Your task to perform on an android device: turn vacation reply on in the gmail app Image 0: 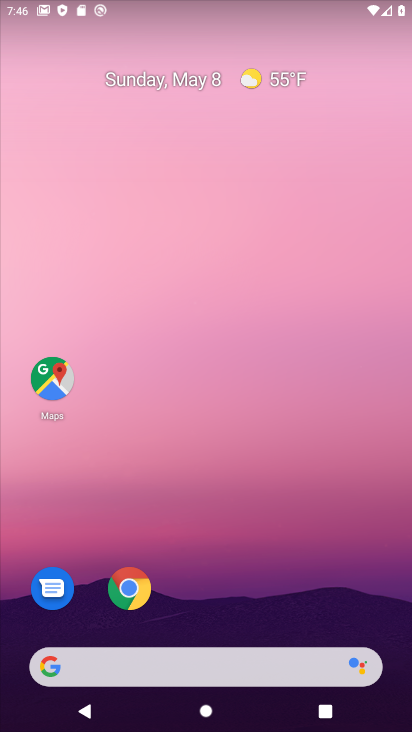
Step 0: click (320, 608)
Your task to perform on an android device: turn vacation reply on in the gmail app Image 1: 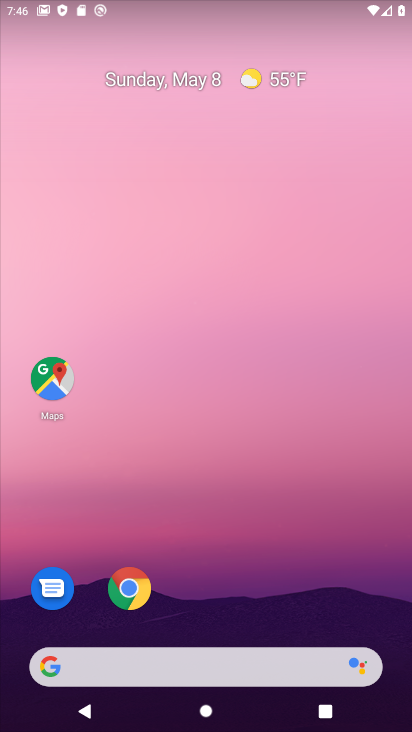
Step 1: drag from (322, 423) to (250, 86)
Your task to perform on an android device: turn vacation reply on in the gmail app Image 2: 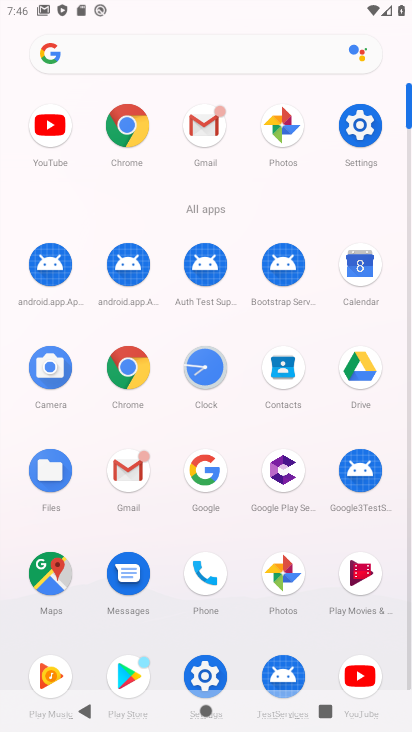
Step 2: click (193, 131)
Your task to perform on an android device: turn vacation reply on in the gmail app Image 3: 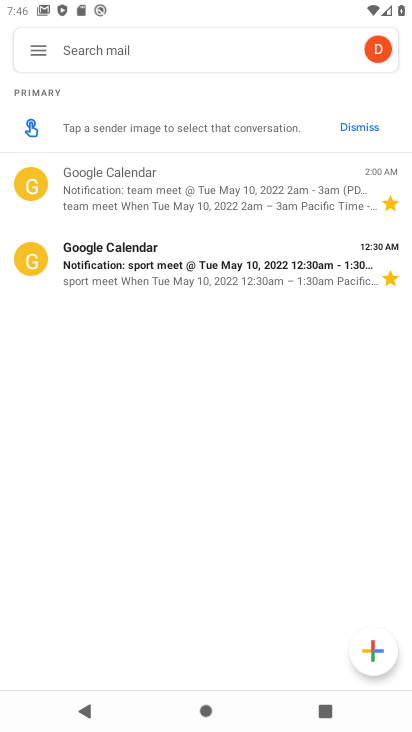
Step 3: click (36, 60)
Your task to perform on an android device: turn vacation reply on in the gmail app Image 4: 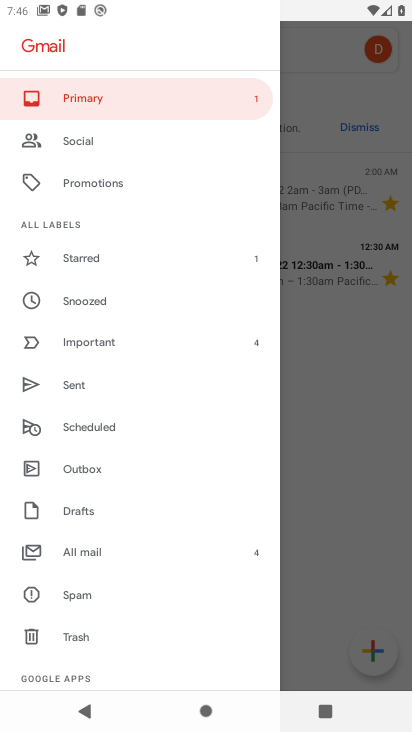
Step 4: drag from (86, 646) to (175, 201)
Your task to perform on an android device: turn vacation reply on in the gmail app Image 5: 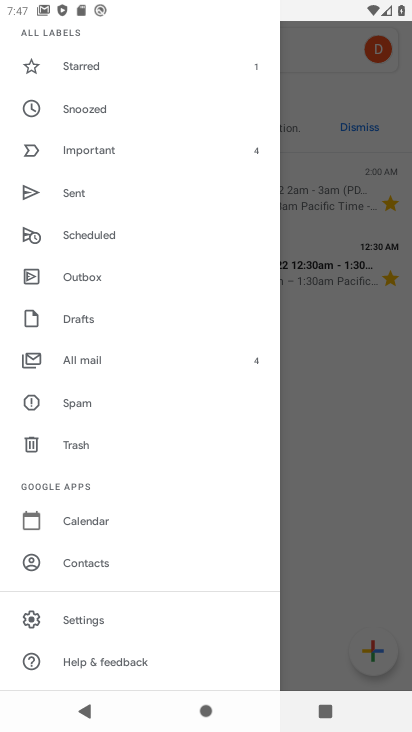
Step 5: click (90, 622)
Your task to perform on an android device: turn vacation reply on in the gmail app Image 6: 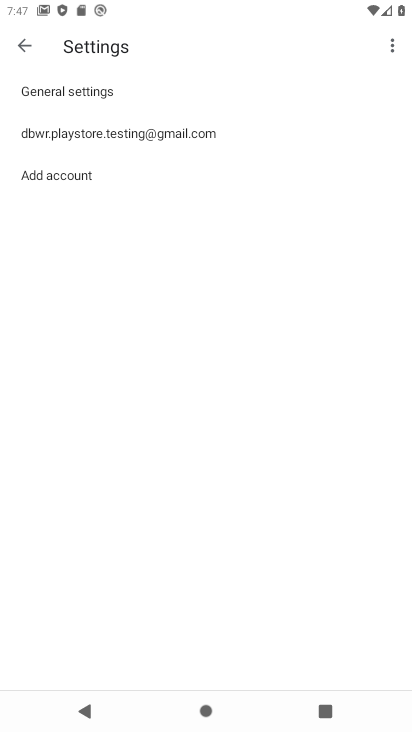
Step 6: click (172, 130)
Your task to perform on an android device: turn vacation reply on in the gmail app Image 7: 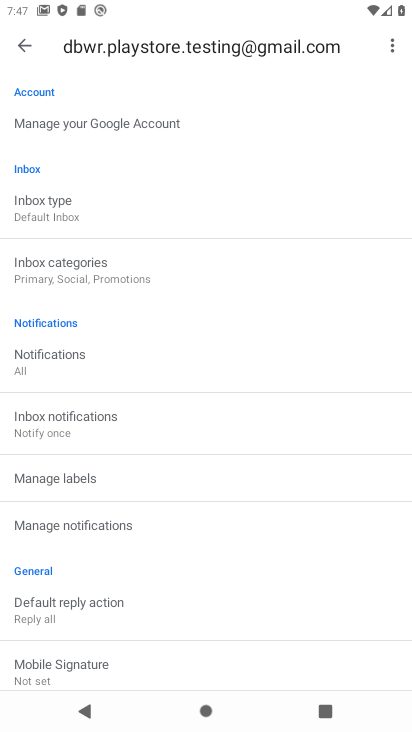
Step 7: drag from (160, 648) to (216, 282)
Your task to perform on an android device: turn vacation reply on in the gmail app Image 8: 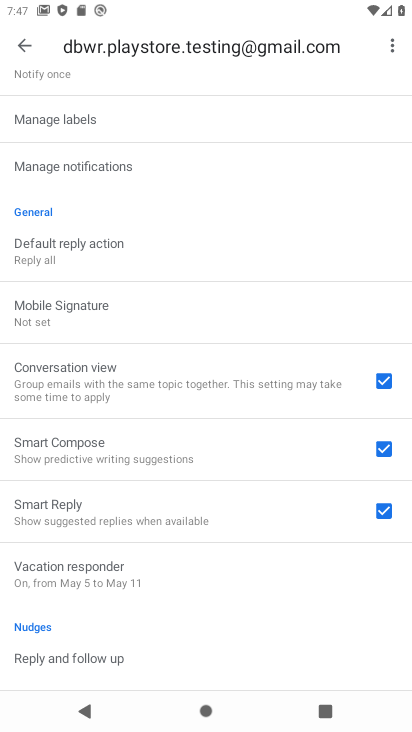
Step 8: click (161, 587)
Your task to perform on an android device: turn vacation reply on in the gmail app Image 9: 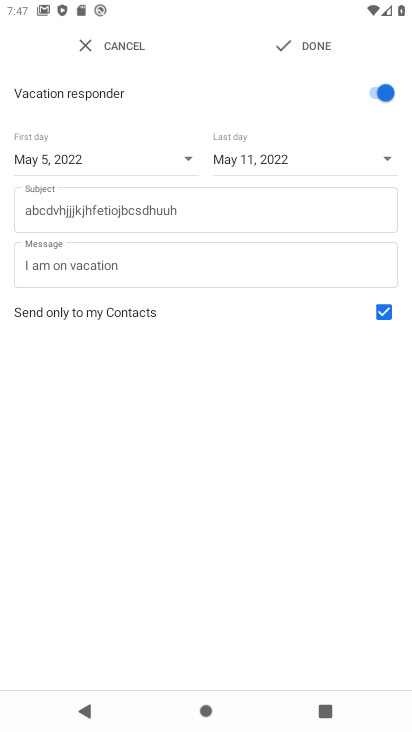
Step 9: task complete